Your task to perform on an android device: toggle data saver in the chrome app Image 0: 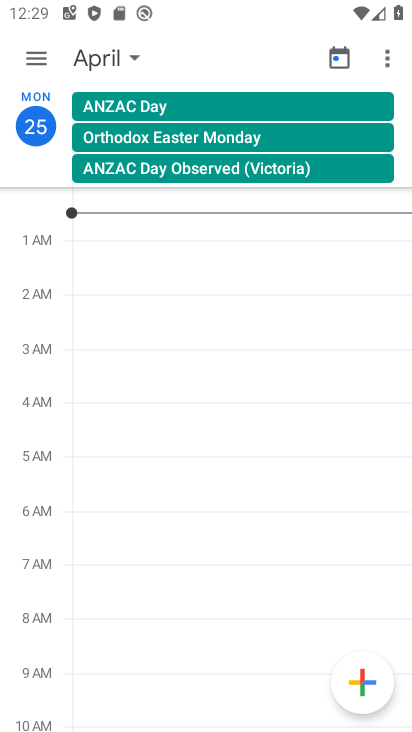
Step 0: press home button
Your task to perform on an android device: toggle data saver in the chrome app Image 1: 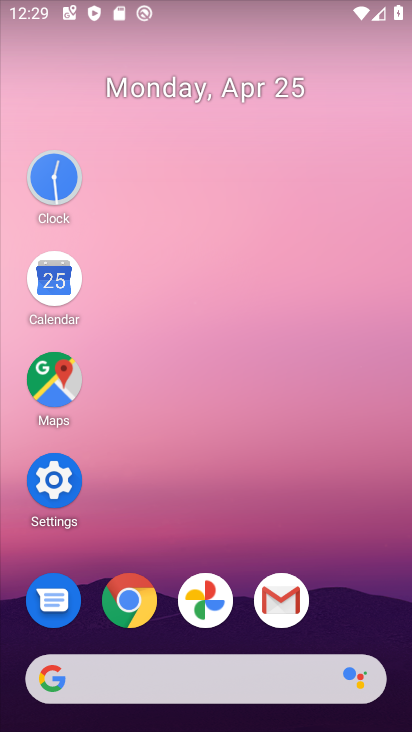
Step 1: click (133, 595)
Your task to perform on an android device: toggle data saver in the chrome app Image 2: 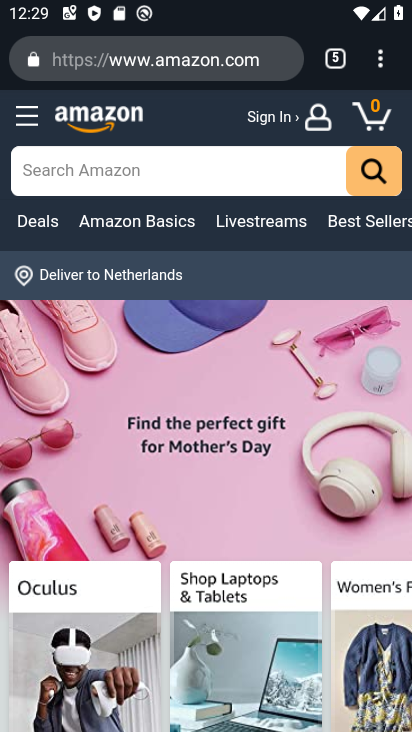
Step 2: click (377, 54)
Your task to perform on an android device: toggle data saver in the chrome app Image 3: 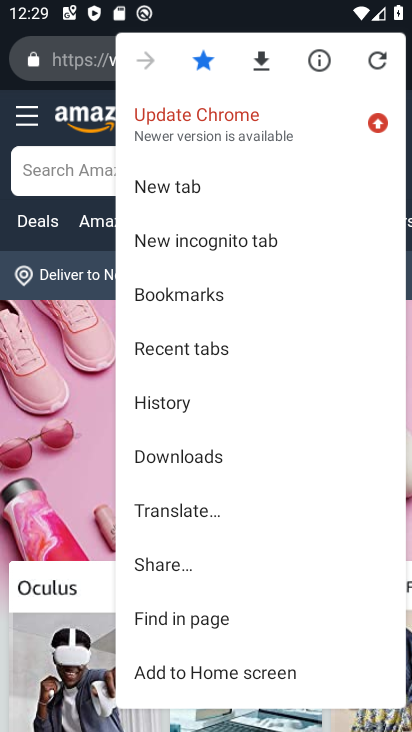
Step 3: drag from (226, 590) to (157, 220)
Your task to perform on an android device: toggle data saver in the chrome app Image 4: 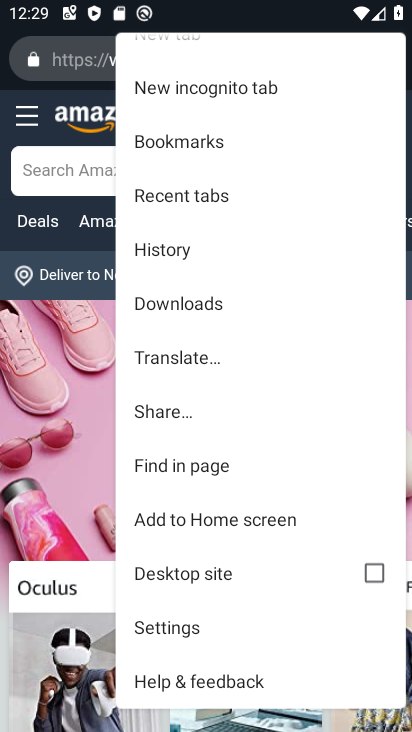
Step 4: click (164, 621)
Your task to perform on an android device: toggle data saver in the chrome app Image 5: 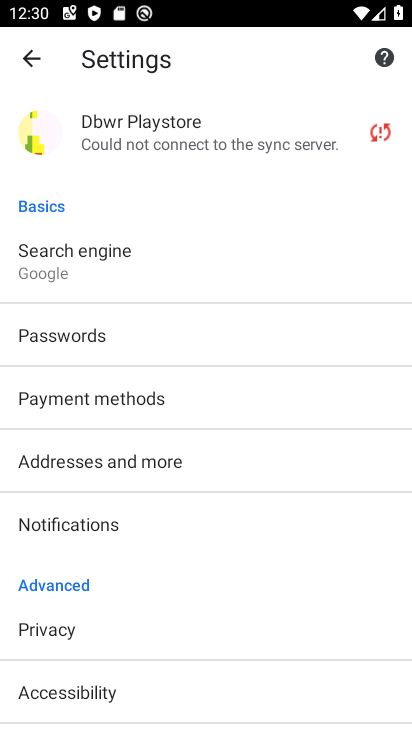
Step 5: drag from (206, 537) to (217, 114)
Your task to perform on an android device: toggle data saver in the chrome app Image 6: 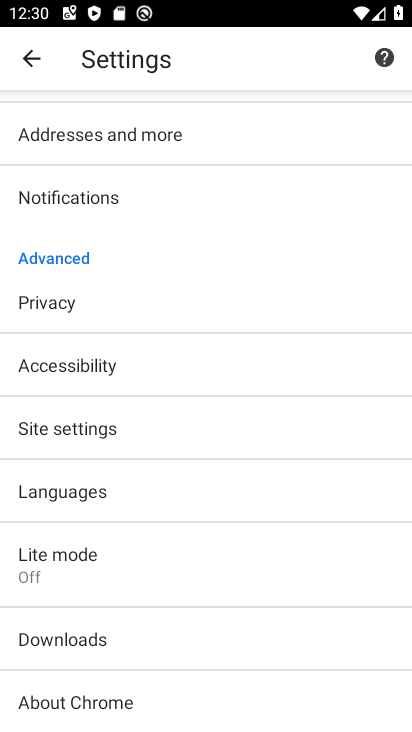
Step 6: click (62, 427)
Your task to perform on an android device: toggle data saver in the chrome app Image 7: 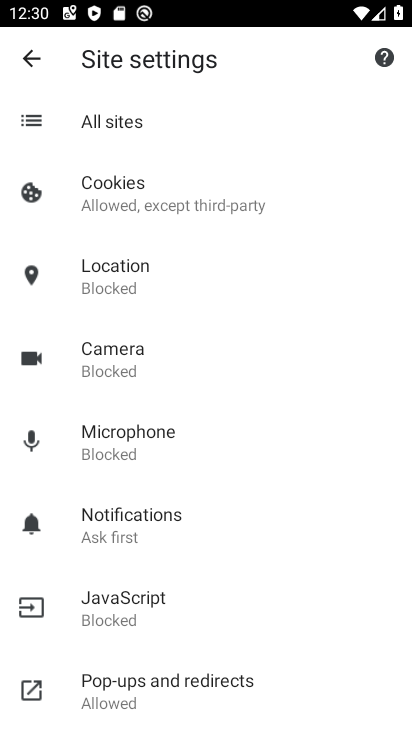
Step 7: click (26, 65)
Your task to perform on an android device: toggle data saver in the chrome app Image 8: 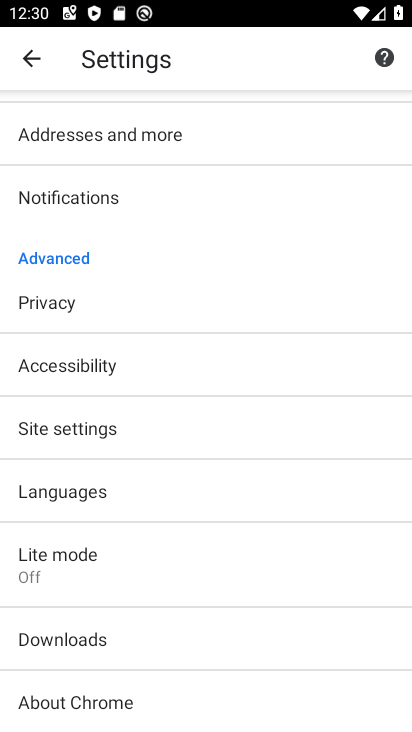
Step 8: click (60, 563)
Your task to perform on an android device: toggle data saver in the chrome app Image 9: 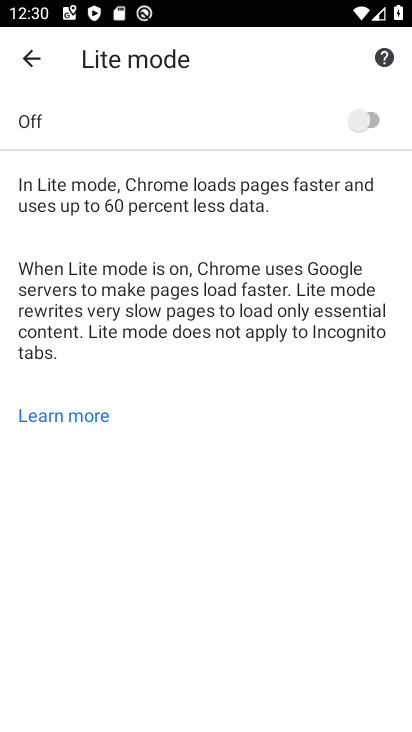
Step 9: click (354, 116)
Your task to perform on an android device: toggle data saver in the chrome app Image 10: 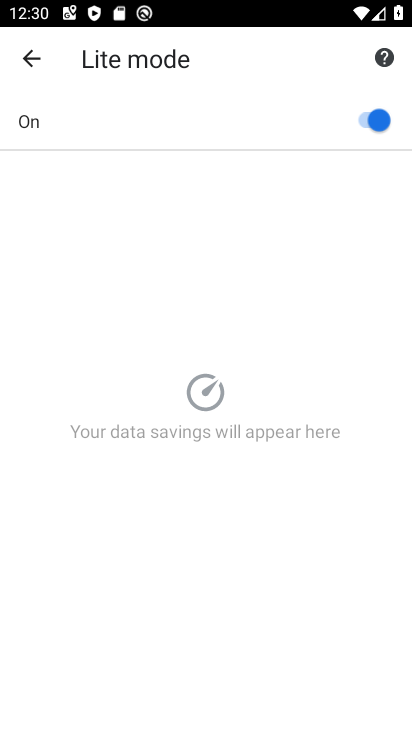
Step 10: task complete